Your task to perform on an android device: create a new album in the google photos Image 0: 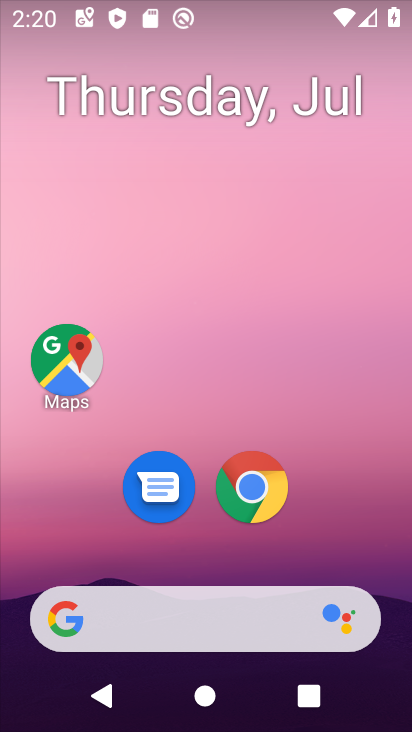
Step 0: drag from (381, 559) to (373, 273)
Your task to perform on an android device: create a new album in the google photos Image 1: 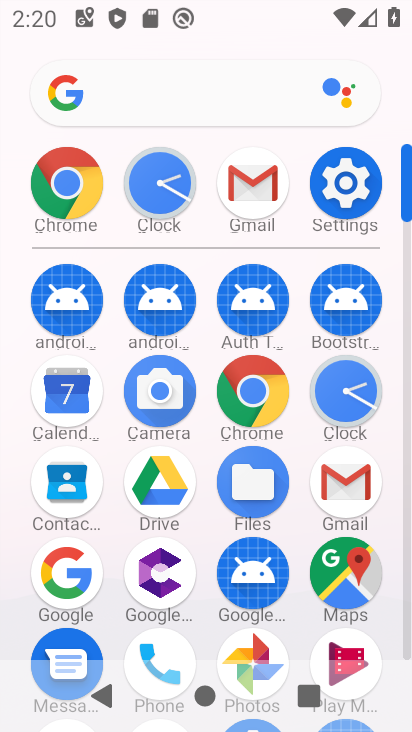
Step 1: drag from (393, 633) to (385, 391)
Your task to perform on an android device: create a new album in the google photos Image 2: 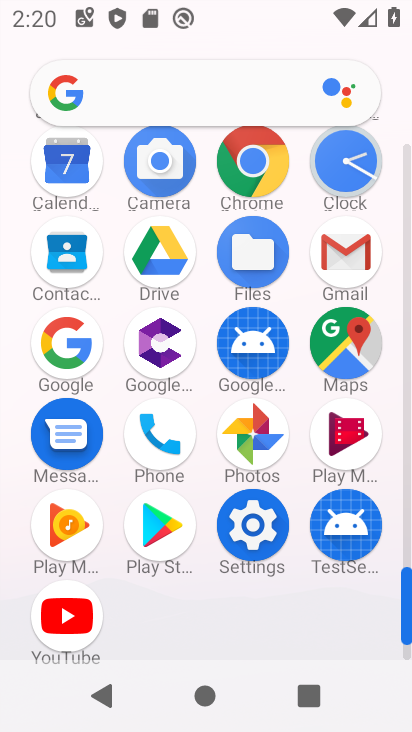
Step 2: click (262, 439)
Your task to perform on an android device: create a new album in the google photos Image 3: 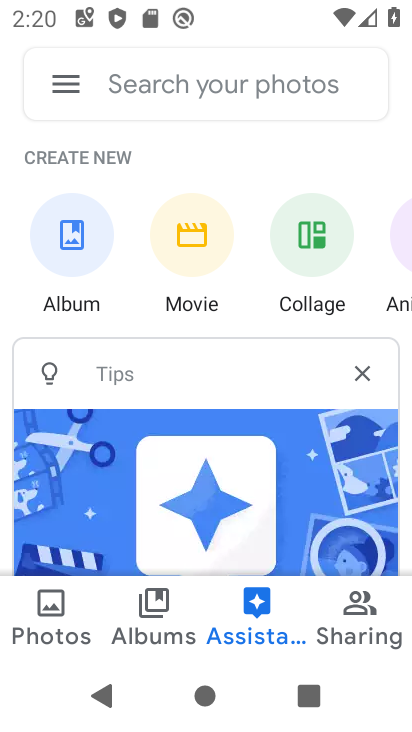
Step 3: click (164, 612)
Your task to perform on an android device: create a new album in the google photos Image 4: 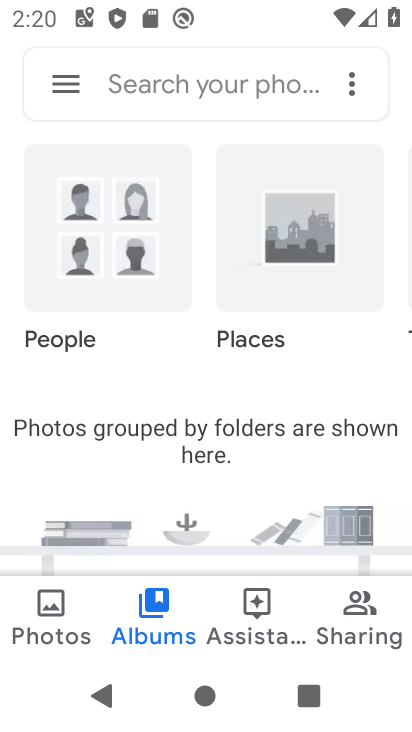
Step 4: click (349, 96)
Your task to perform on an android device: create a new album in the google photos Image 5: 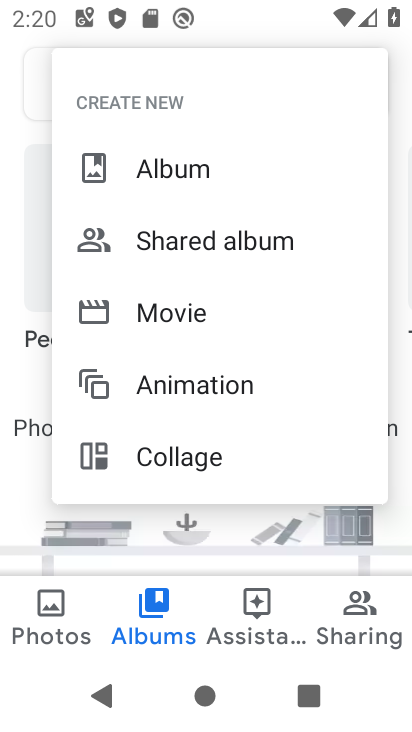
Step 5: click (264, 177)
Your task to perform on an android device: create a new album in the google photos Image 6: 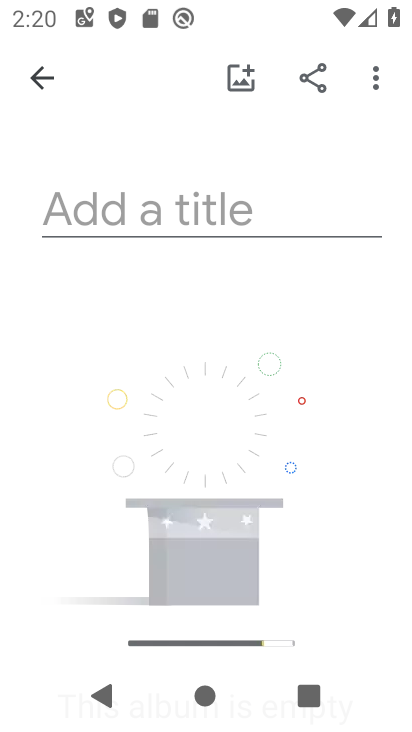
Step 6: click (231, 221)
Your task to perform on an android device: create a new album in the google photos Image 7: 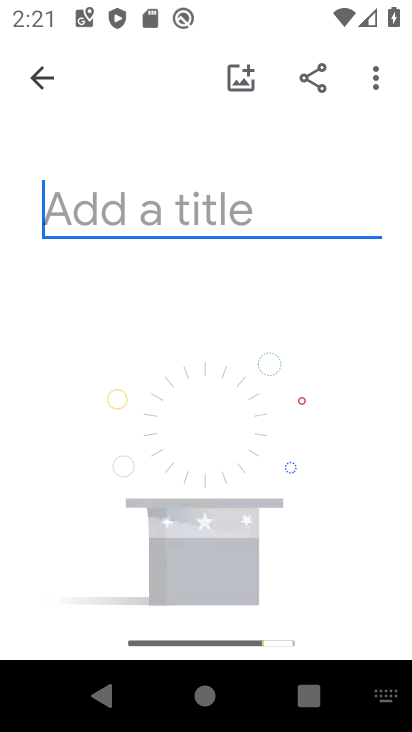
Step 7: type "fav"
Your task to perform on an android device: create a new album in the google photos Image 8: 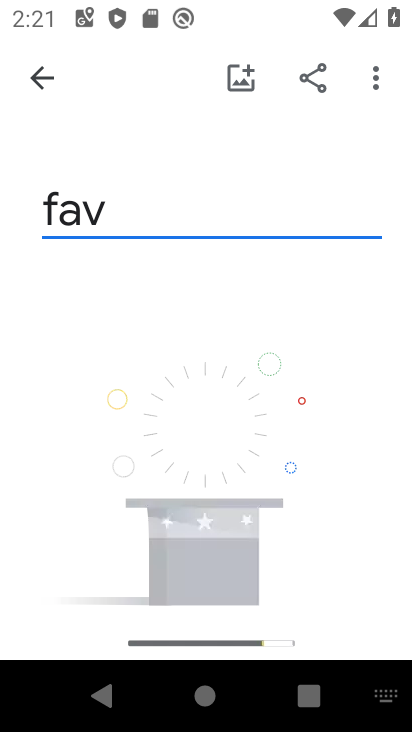
Step 8: drag from (342, 516) to (342, 333)
Your task to perform on an android device: create a new album in the google photos Image 9: 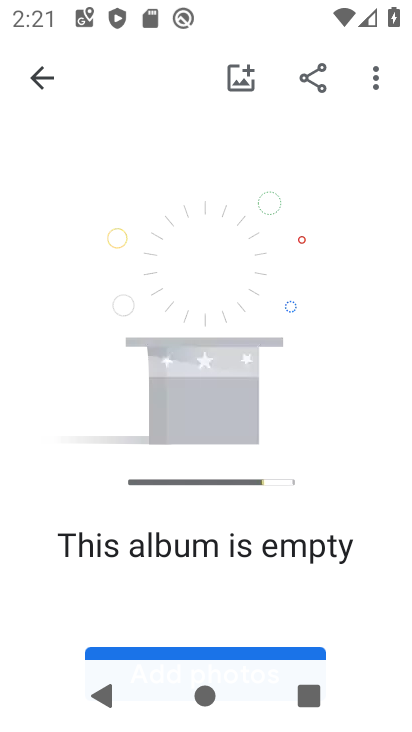
Step 9: drag from (359, 575) to (360, 351)
Your task to perform on an android device: create a new album in the google photos Image 10: 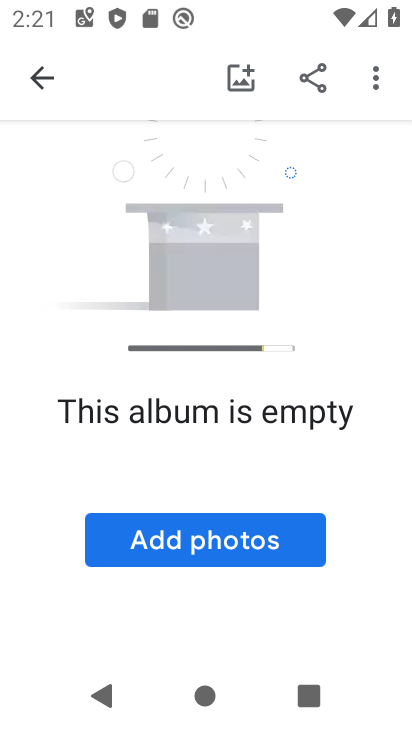
Step 10: click (219, 546)
Your task to perform on an android device: create a new album in the google photos Image 11: 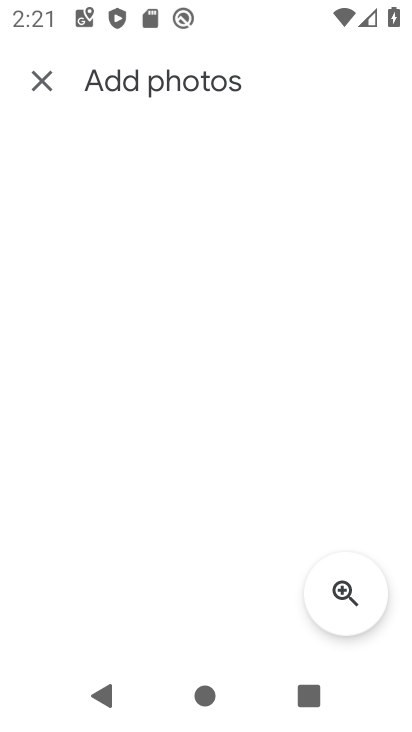
Step 11: click (295, 424)
Your task to perform on an android device: create a new album in the google photos Image 12: 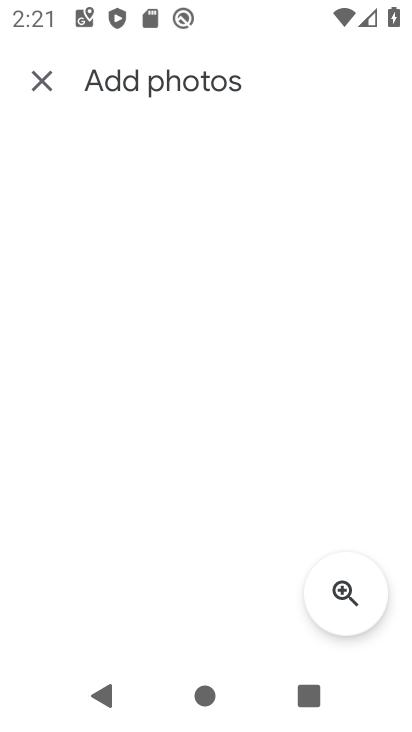
Step 12: task complete